Your task to perform on an android device: Clear the shopping cart on bestbuy.com. Search for lg ultragear on bestbuy.com, select the first entry, and add it to the cart. Image 0: 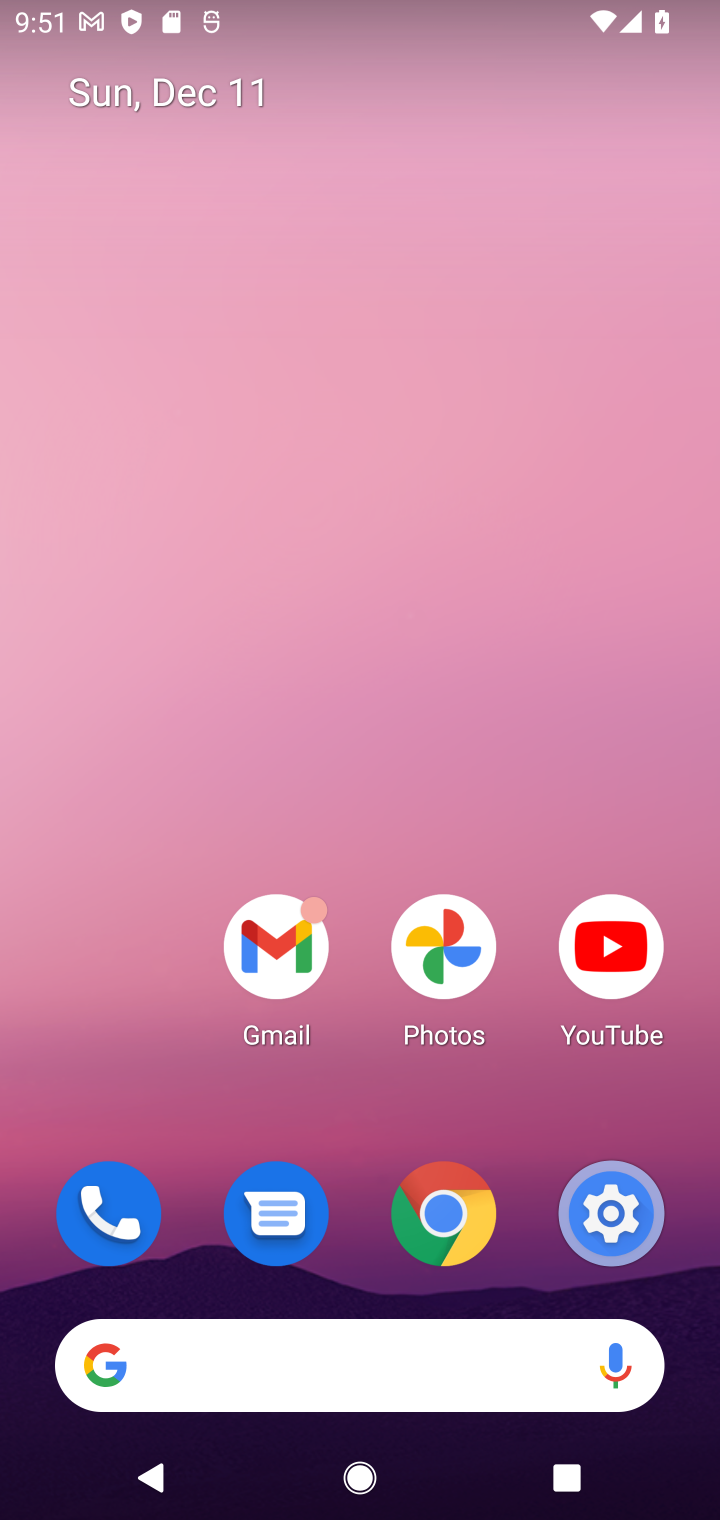
Step 0: click (451, 1377)
Your task to perform on an android device: Clear the shopping cart on bestbuy.com. Search for lg ultragear on bestbuy.com, select the first entry, and add it to the cart. Image 1: 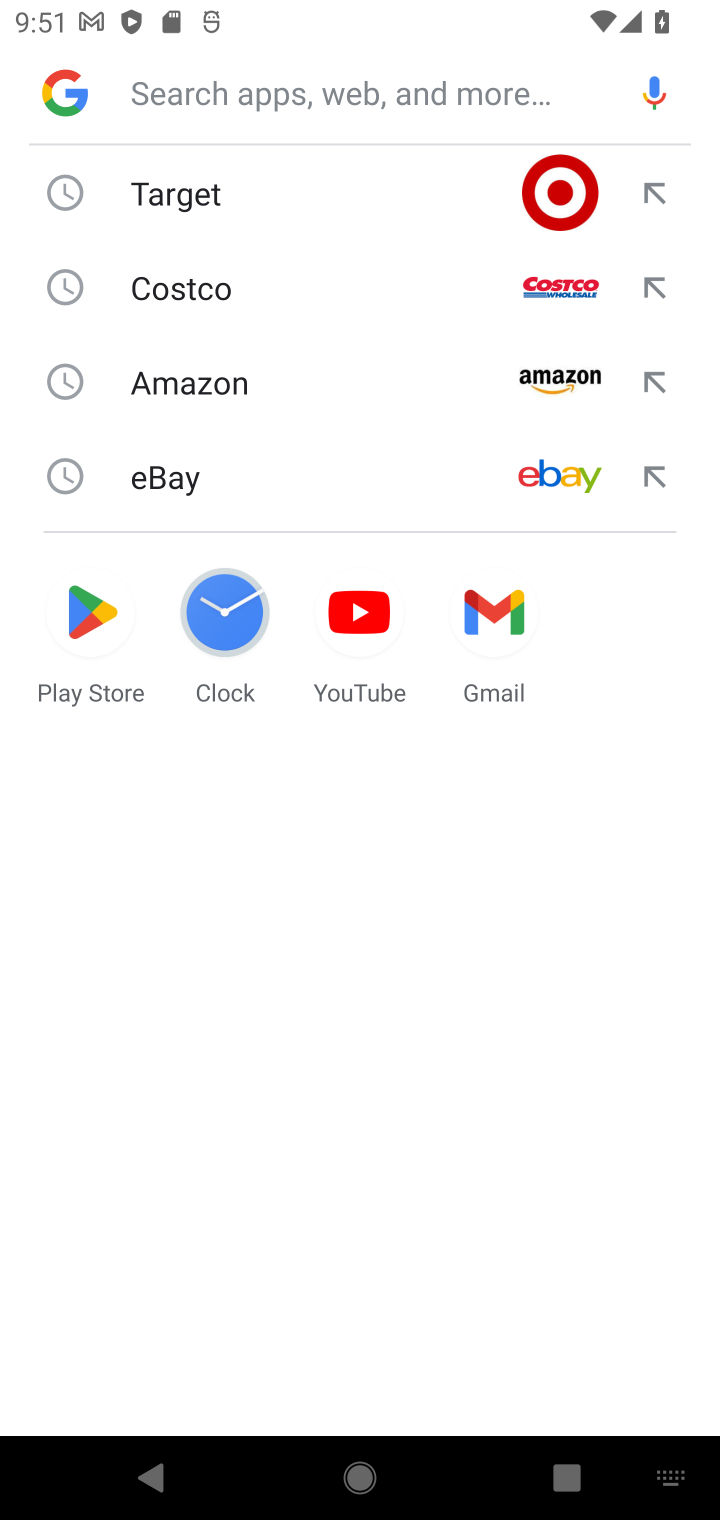
Step 1: type "bestbuy"
Your task to perform on an android device: Clear the shopping cart on bestbuy.com. Search for lg ultragear on bestbuy.com, select the first entry, and add it to the cart. Image 2: 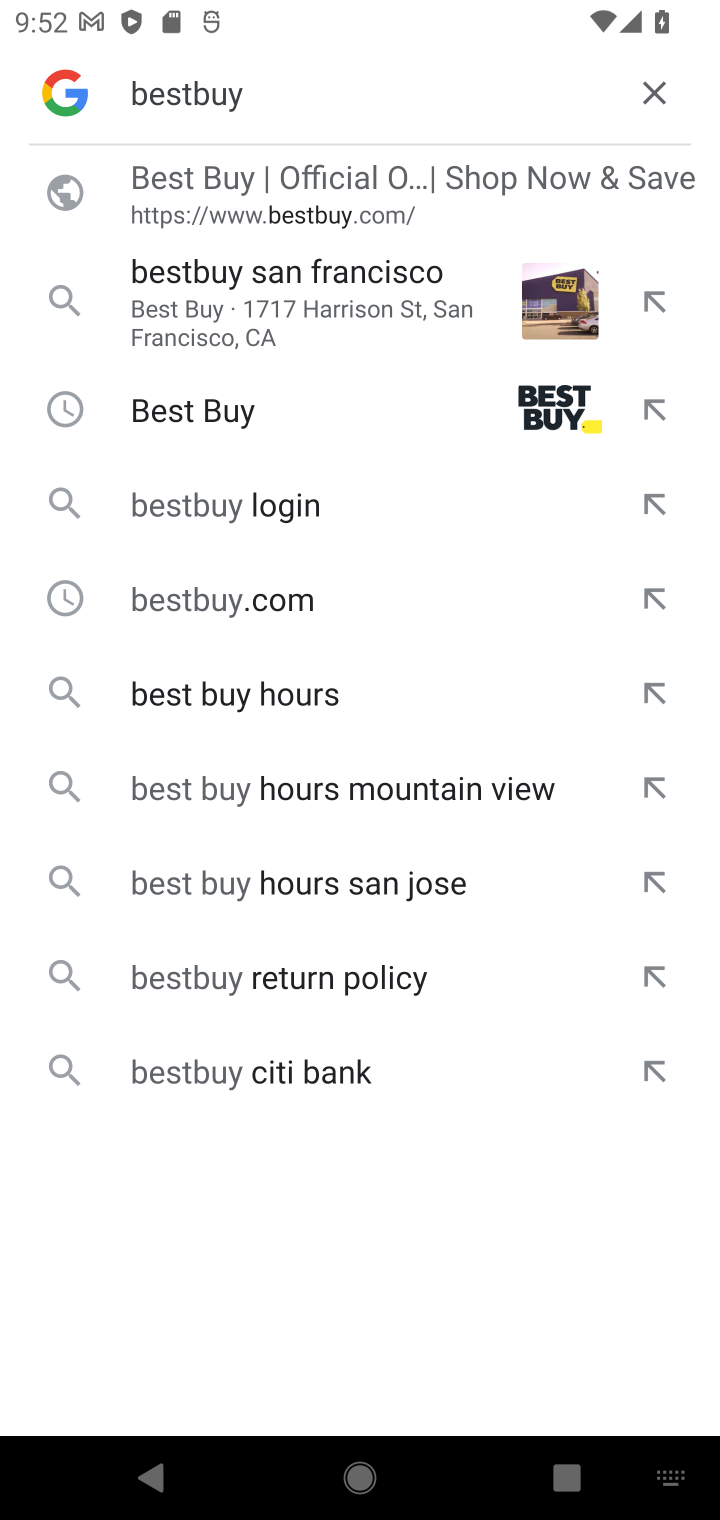
Step 2: click (428, 224)
Your task to perform on an android device: Clear the shopping cart on bestbuy.com. Search for lg ultragear on bestbuy.com, select the first entry, and add it to the cart. Image 3: 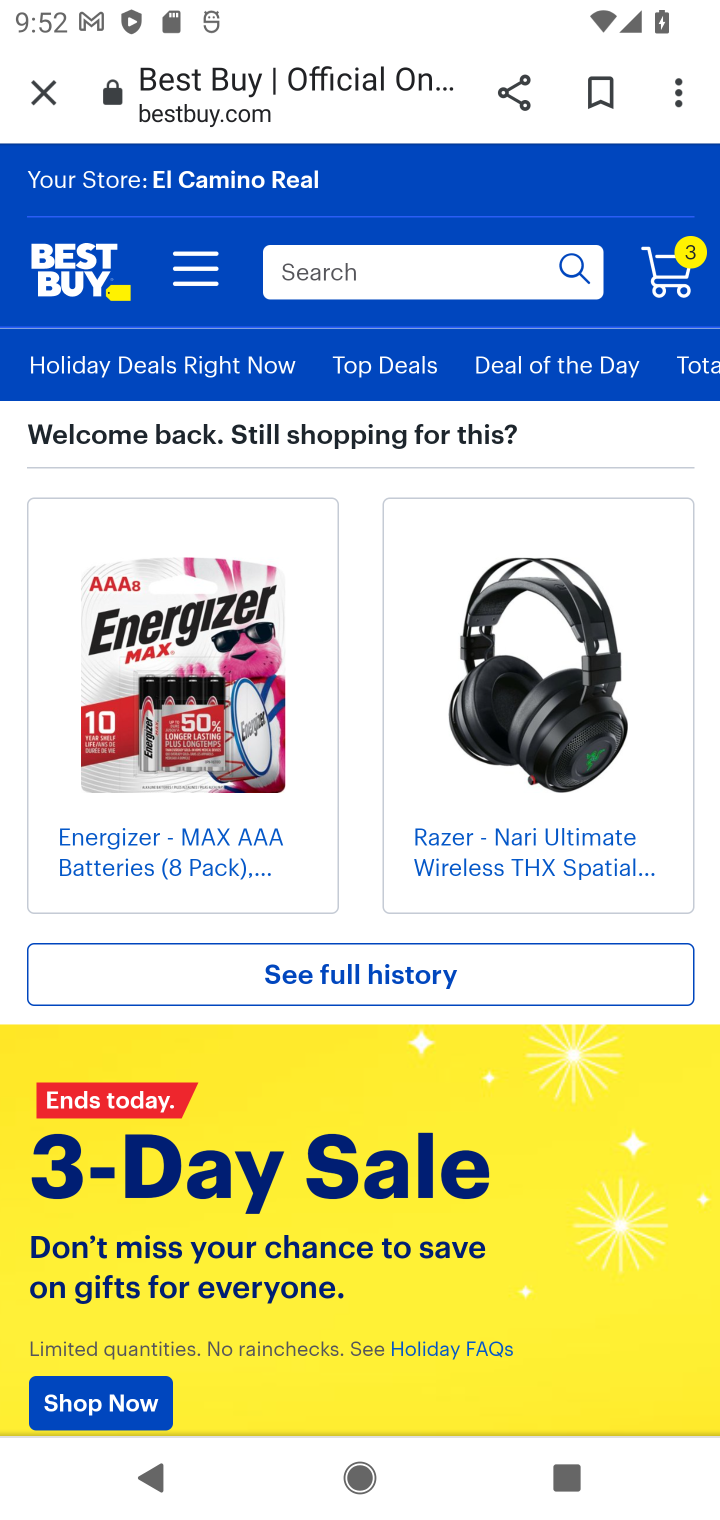
Step 3: click (350, 293)
Your task to perform on an android device: Clear the shopping cart on bestbuy.com. Search for lg ultragear on bestbuy.com, select the first entry, and add it to the cart. Image 4: 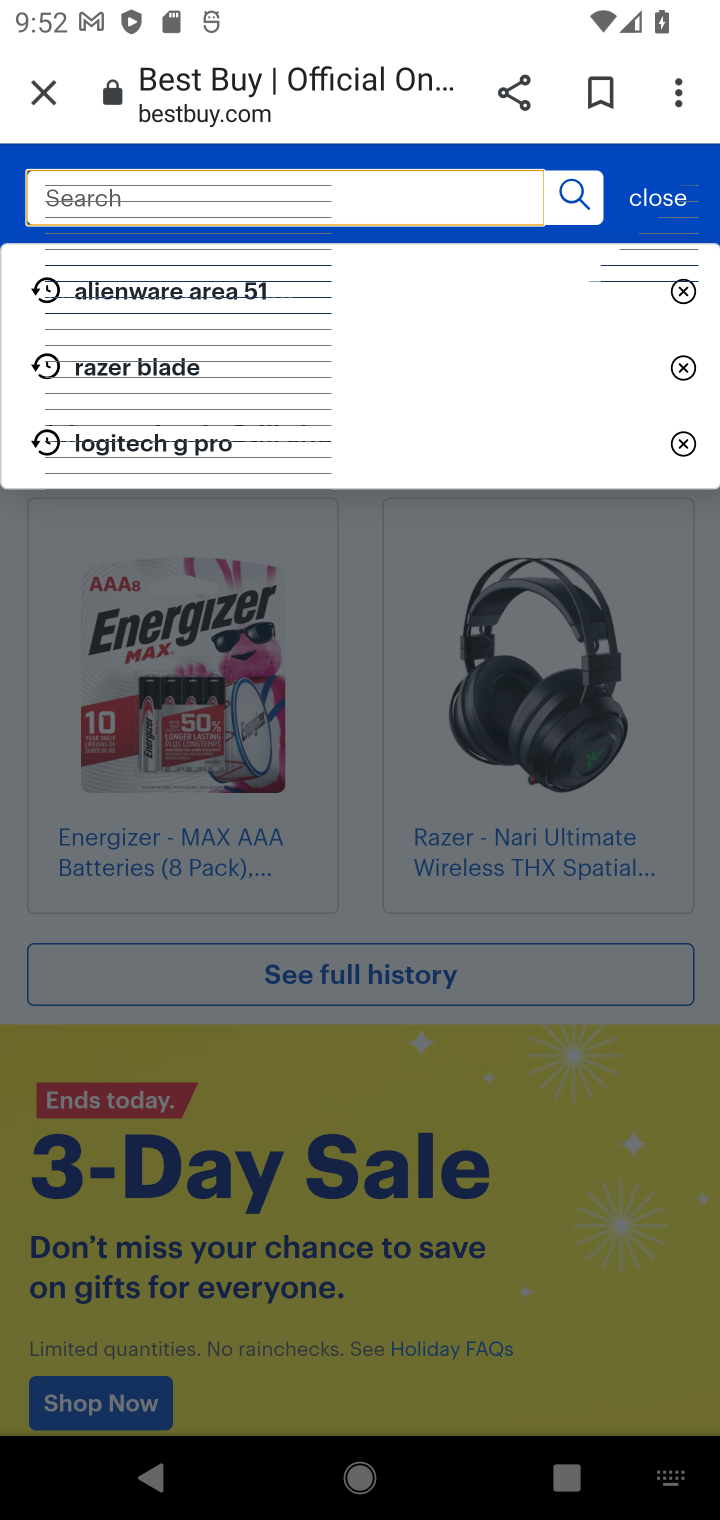
Step 4: type "lg ultragear"
Your task to perform on an android device: Clear the shopping cart on bestbuy.com. Search for lg ultragear on bestbuy.com, select the first entry, and add it to the cart. Image 5: 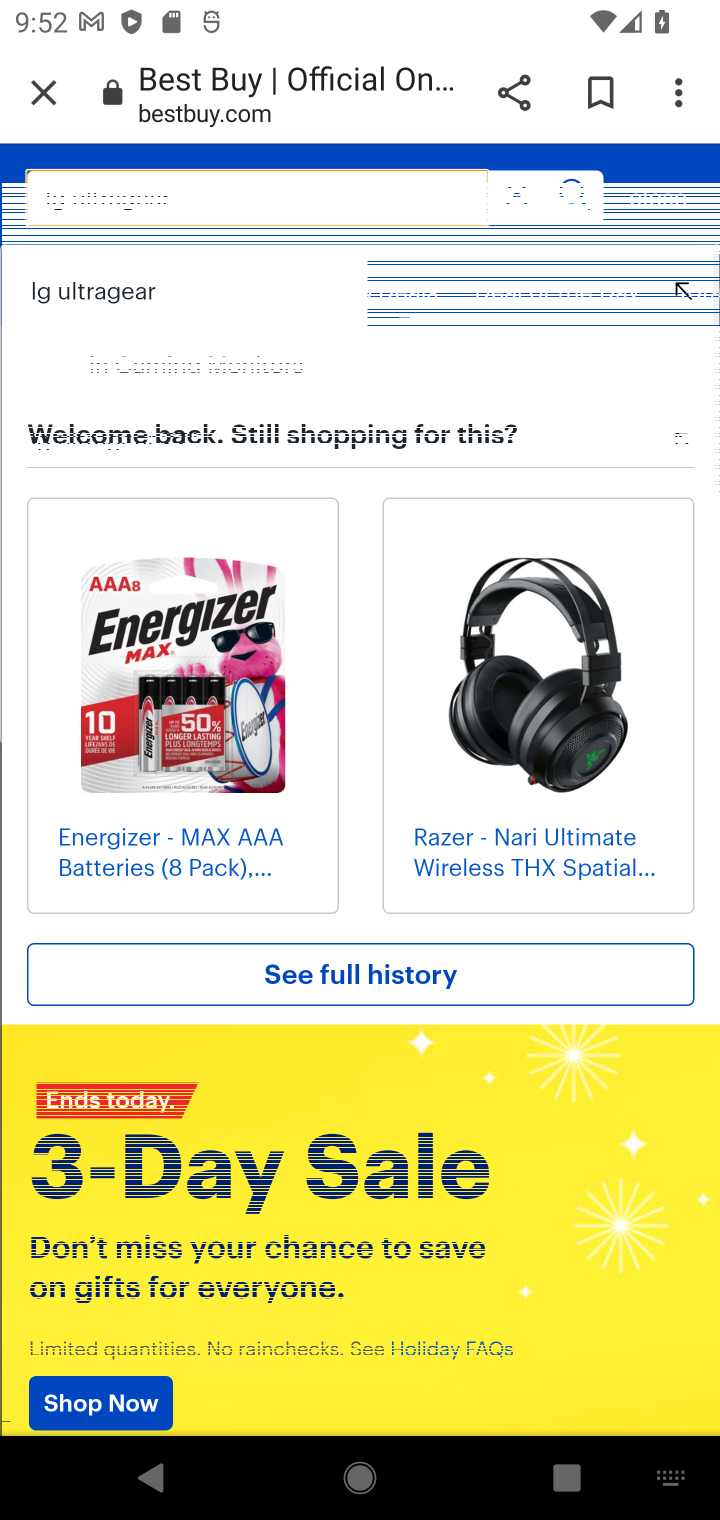
Step 5: click (217, 317)
Your task to perform on an android device: Clear the shopping cart on bestbuy.com. Search for lg ultragear on bestbuy.com, select the first entry, and add it to the cart. Image 6: 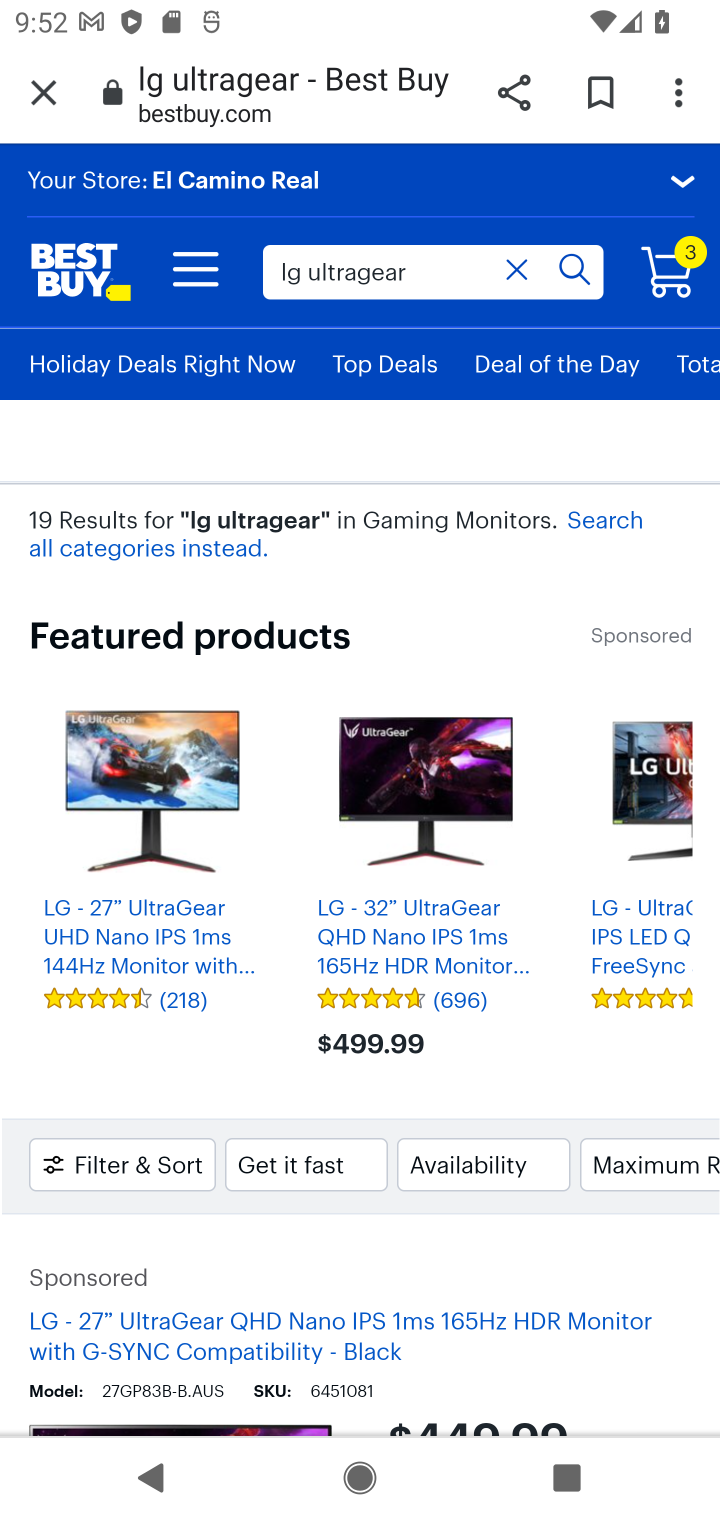
Step 6: click (149, 858)
Your task to perform on an android device: Clear the shopping cart on bestbuy.com. Search for lg ultragear on bestbuy.com, select the first entry, and add it to the cart. Image 7: 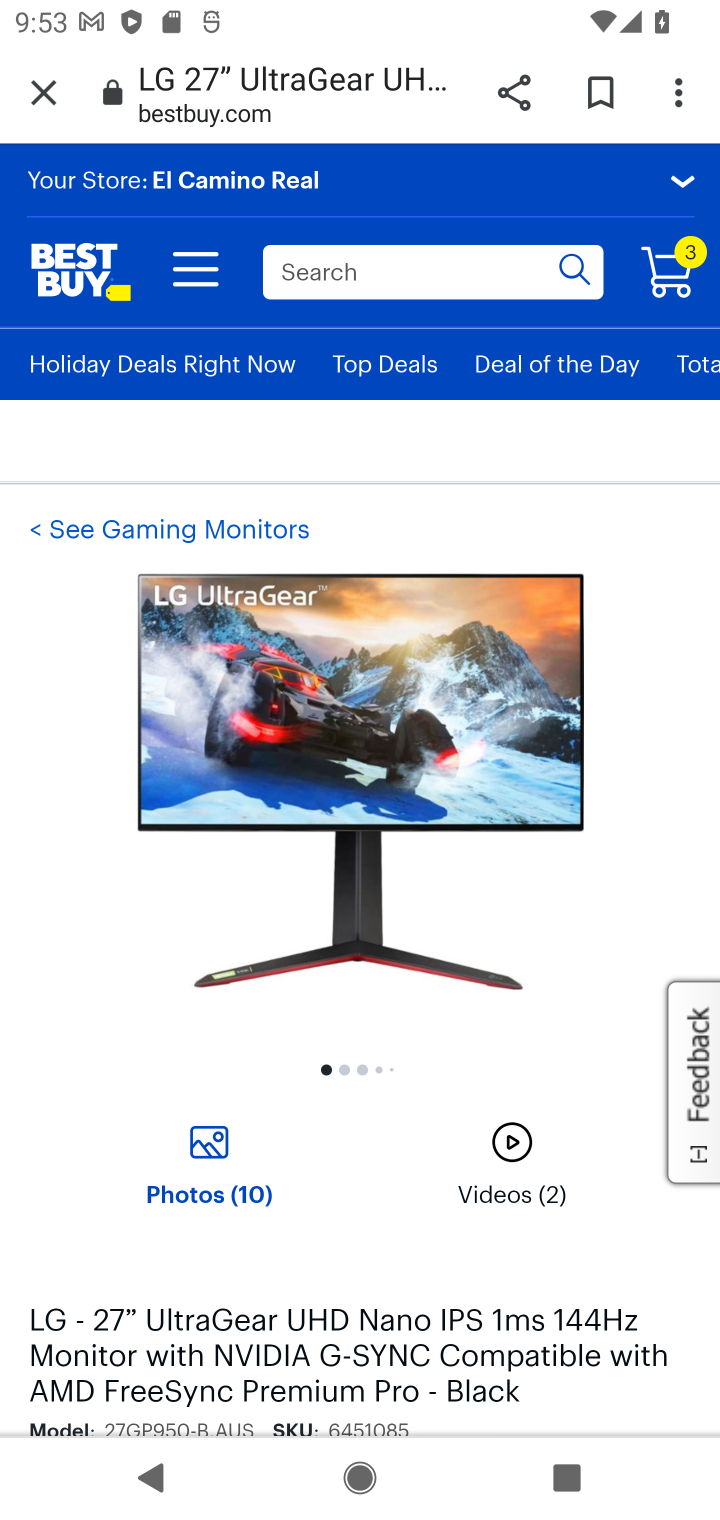
Step 7: task complete